Your task to perform on an android device: Go to wifi settings Image 0: 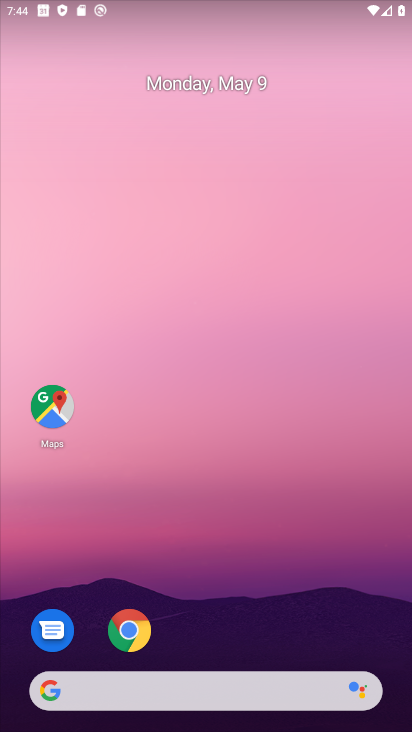
Step 0: drag from (333, 559) to (331, 236)
Your task to perform on an android device: Go to wifi settings Image 1: 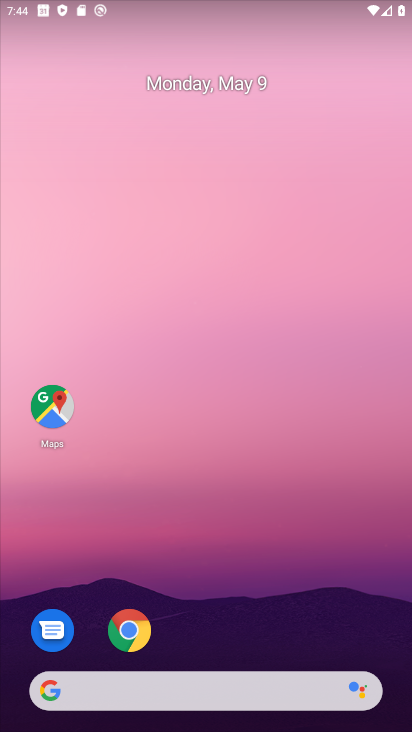
Step 1: drag from (291, 600) to (231, 174)
Your task to perform on an android device: Go to wifi settings Image 2: 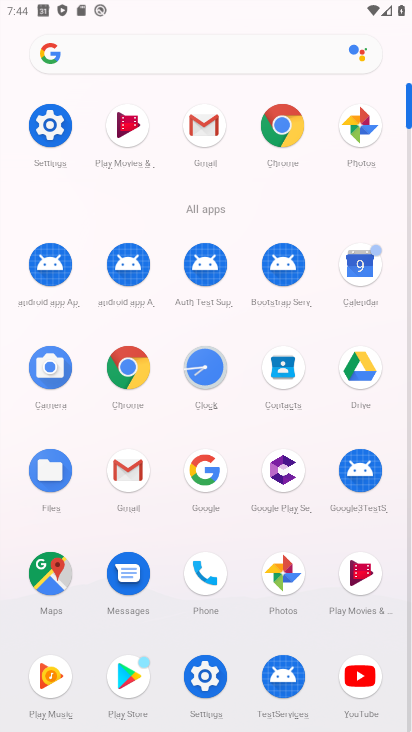
Step 2: click (212, 680)
Your task to perform on an android device: Go to wifi settings Image 3: 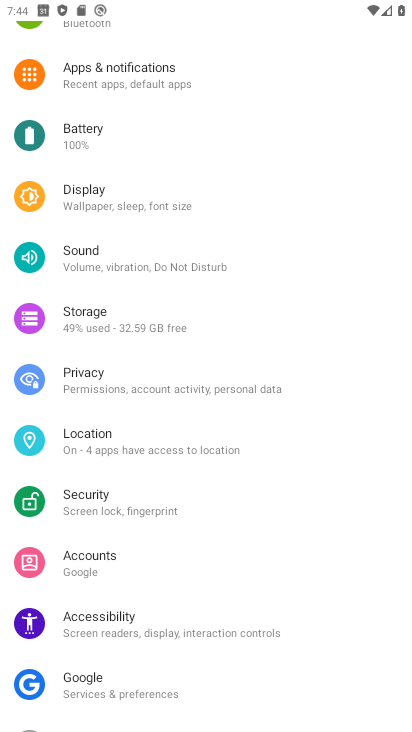
Step 3: drag from (158, 92) to (293, 583)
Your task to perform on an android device: Go to wifi settings Image 4: 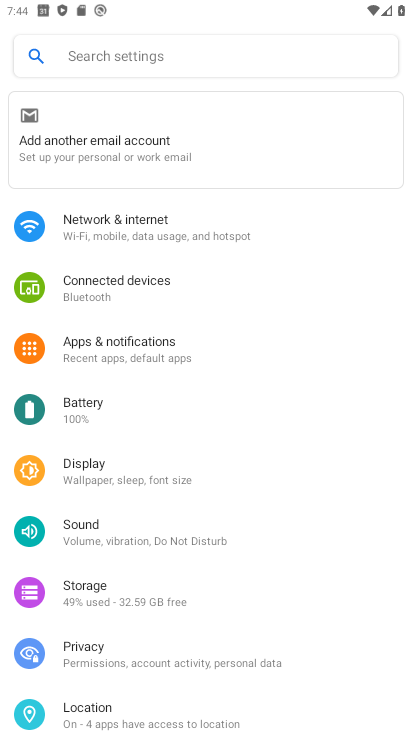
Step 4: click (151, 227)
Your task to perform on an android device: Go to wifi settings Image 5: 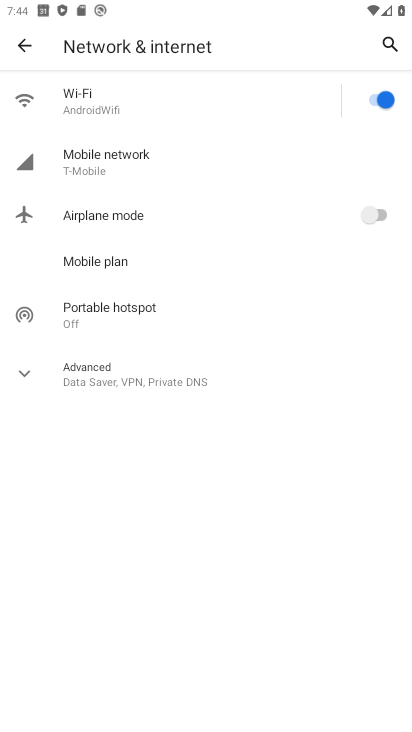
Step 5: click (147, 96)
Your task to perform on an android device: Go to wifi settings Image 6: 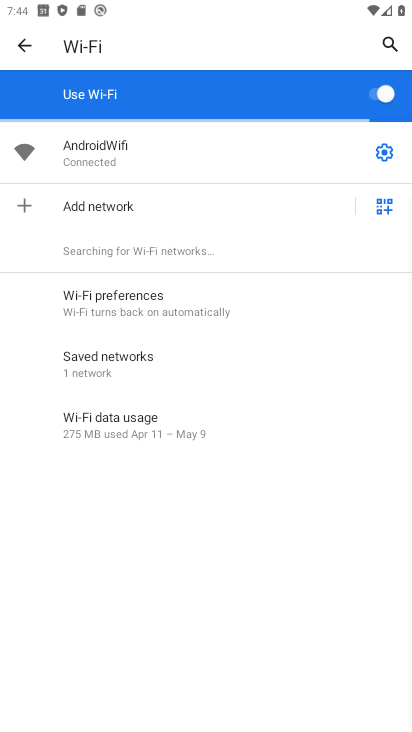
Step 6: click (383, 152)
Your task to perform on an android device: Go to wifi settings Image 7: 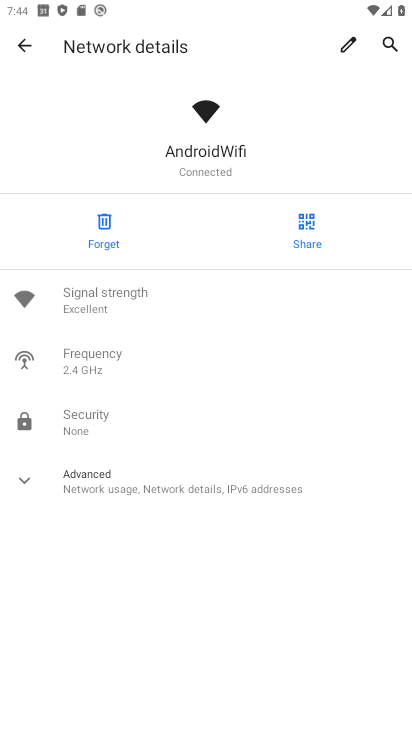
Step 7: task complete